Your task to perform on an android device: When is my next appointment? Image 0: 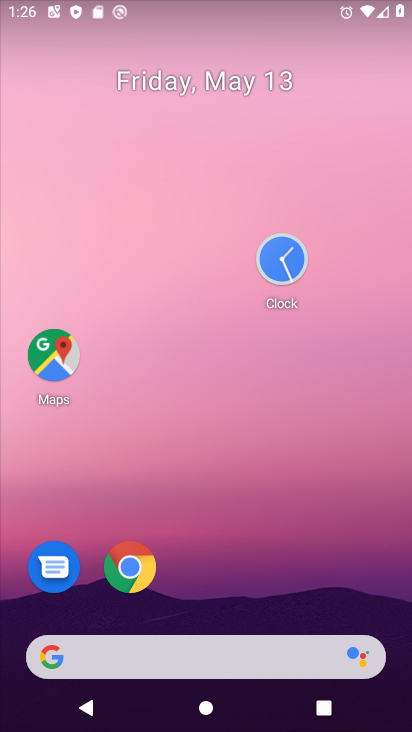
Step 0: drag from (269, 622) to (280, 76)
Your task to perform on an android device: When is my next appointment? Image 1: 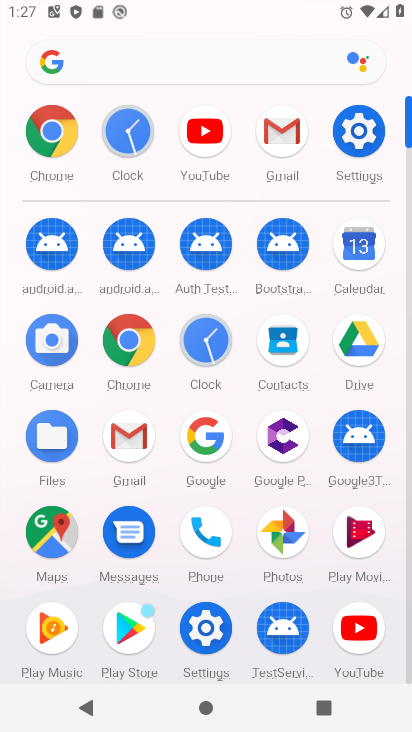
Step 1: click (348, 265)
Your task to perform on an android device: When is my next appointment? Image 2: 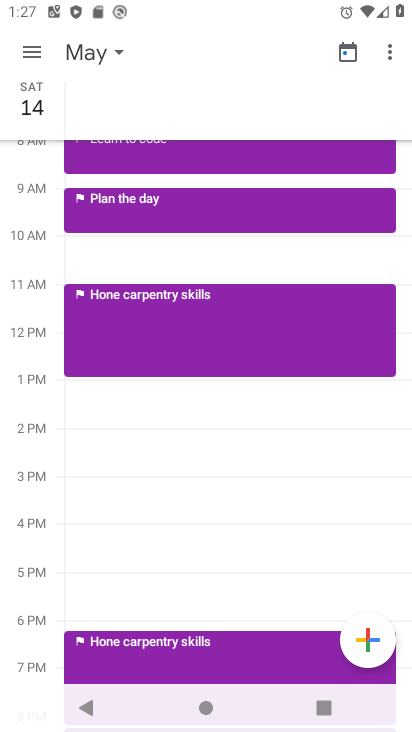
Step 2: task complete